Your task to perform on an android device: turn off notifications settings in the gmail app Image 0: 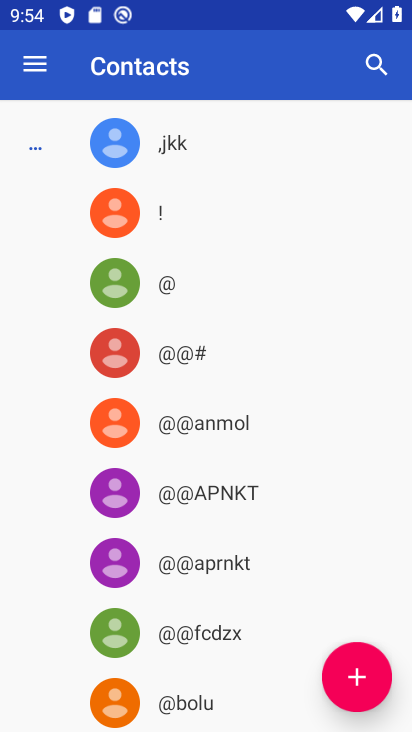
Step 0: press home button
Your task to perform on an android device: turn off notifications settings in the gmail app Image 1: 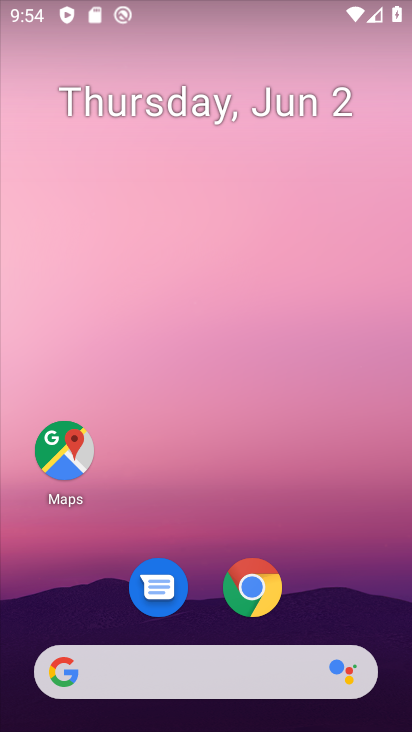
Step 1: drag from (323, 615) to (287, 118)
Your task to perform on an android device: turn off notifications settings in the gmail app Image 2: 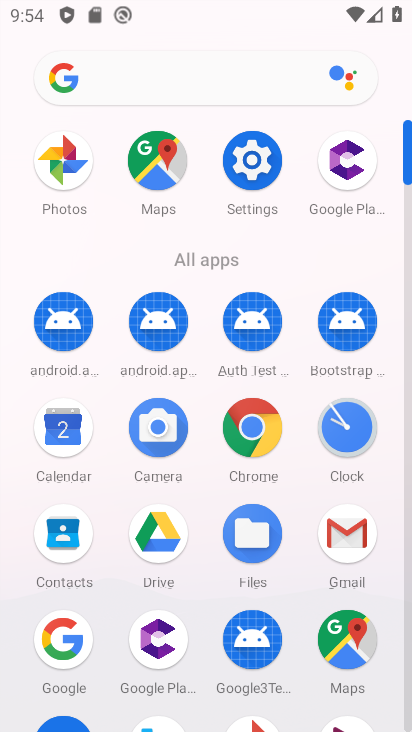
Step 2: click (347, 545)
Your task to perform on an android device: turn off notifications settings in the gmail app Image 3: 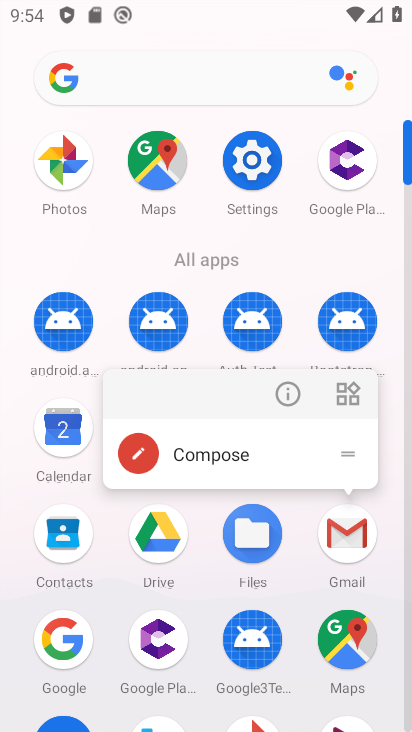
Step 3: click (285, 398)
Your task to perform on an android device: turn off notifications settings in the gmail app Image 4: 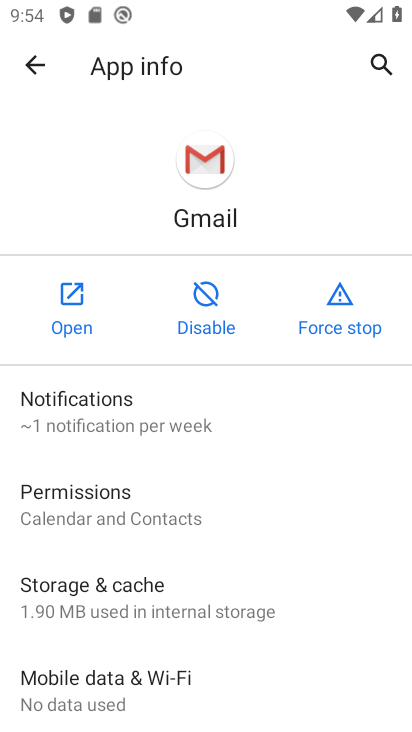
Step 4: click (285, 399)
Your task to perform on an android device: turn off notifications settings in the gmail app Image 5: 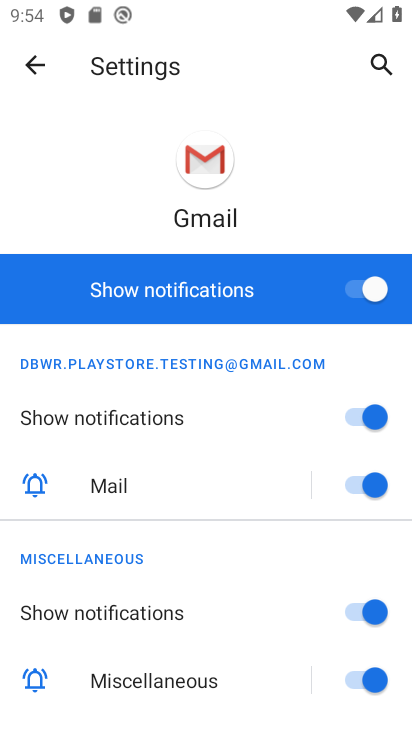
Step 5: drag from (285, 399) to (280, 312)
Your task to perform on an android device: turn off notifications settings in the gmail app Image 6: 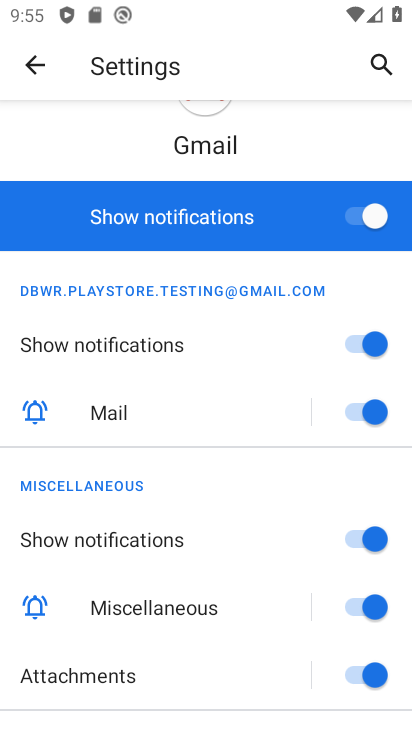
Step 6: click (352, 215)
Your task to perform on an android device: turn off notifications settings in the gmail app Image 7: 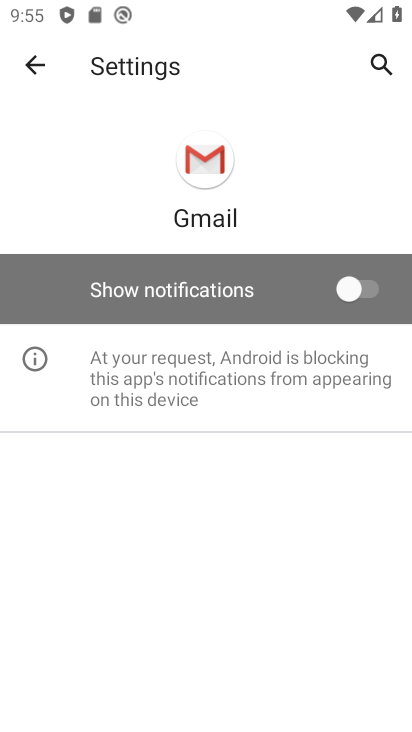
Step 7: task complete